Your task to perform on an android device: set default search engine in the chrome app Image 0: 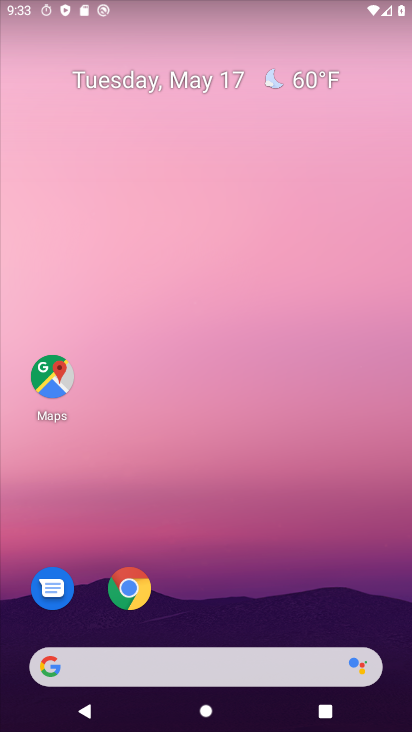
Step 0: drag from (259, 694) to (116, 195)
Your task to perform on an android device: set default search engine in the chrome app Image 1: 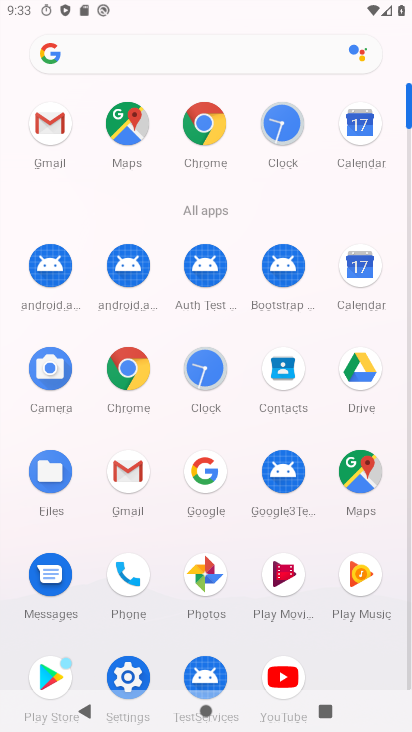
Step 1: click (124, 353)
Your task to perform on an android device: set default search engine in the chrome app Image 2: 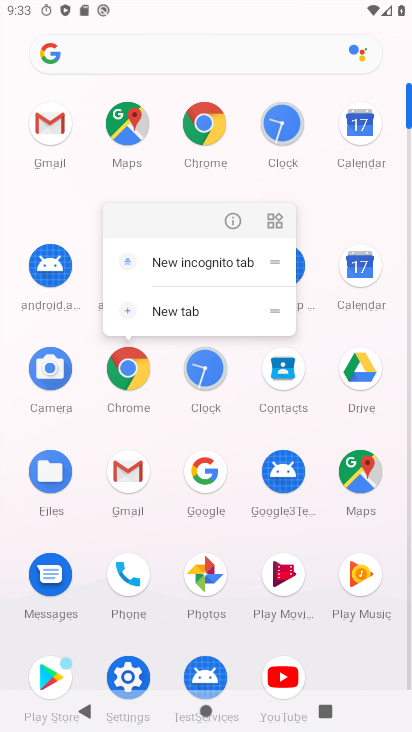
Step 2: click (120, 376)
Your task to perform on an android device: set default search engine in the chrome app Image 3: 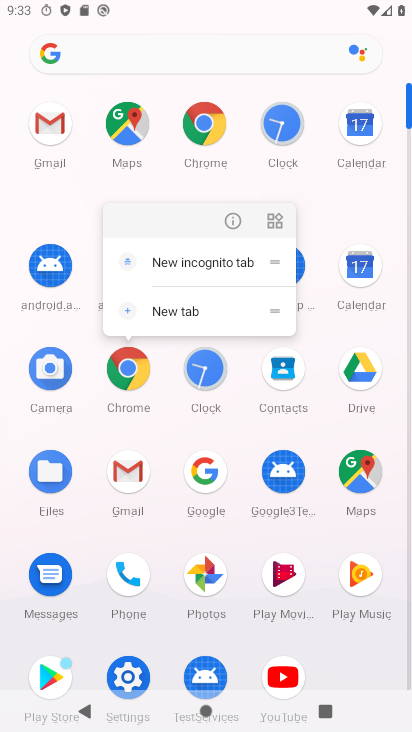
Step 3: click (137, 359)
Your task to perform on an android device: set default search engine in the chrome app Image 4: 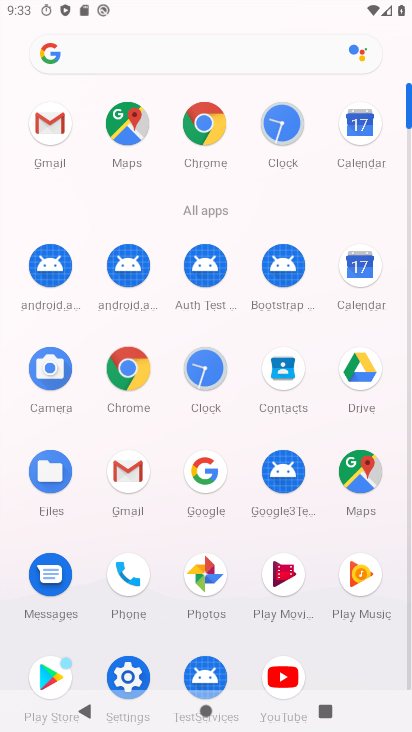
Step 4: click (131, 370)
Your task to perform on an android device: set default search engine in the chrome app Image 5: 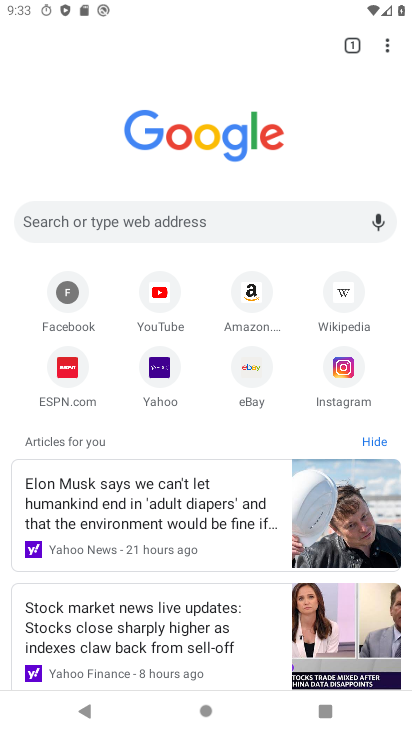
Step 5: drag from (384, 47) to (222, 377)
Your task to perform on an android device: set default search engine in the chrome app Image 6: 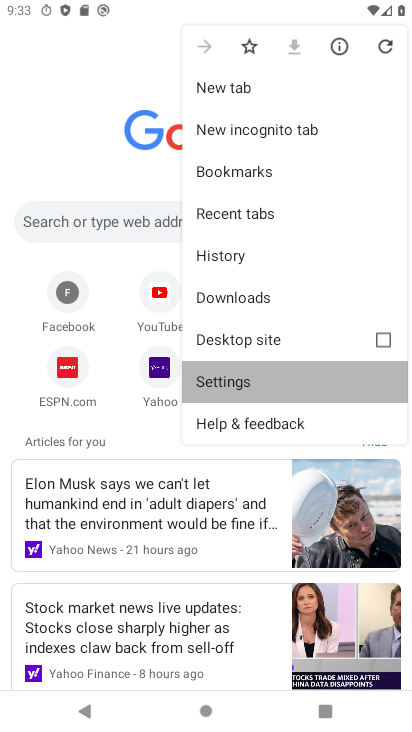
Step 6: click (221, 378)
Your task to perform on an android device: set default search engine in the chrome app Image 7: 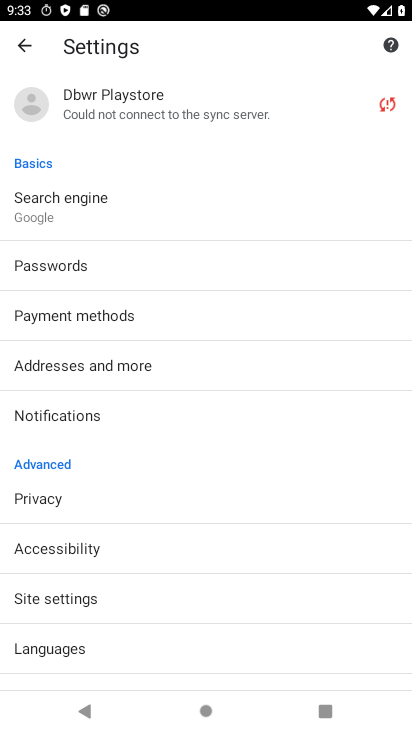
Step 7: click (40, 196)
Your task to perform on an android device: set default search engine in the chrome app Image 8: 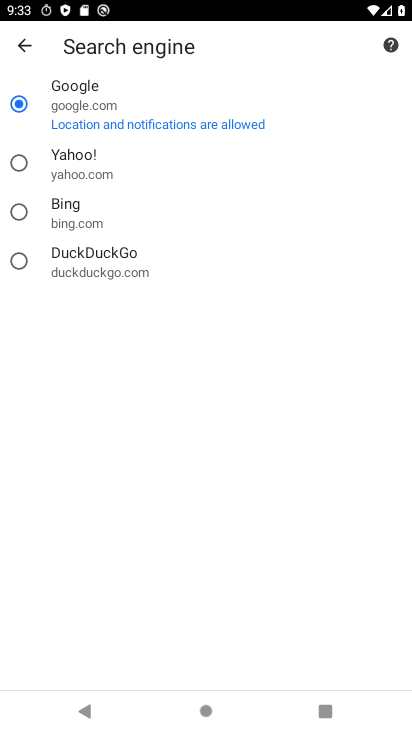
Step 8: click (14, 159)
Your task to perform on an android device: set default search engine in the chrome app Image 9: 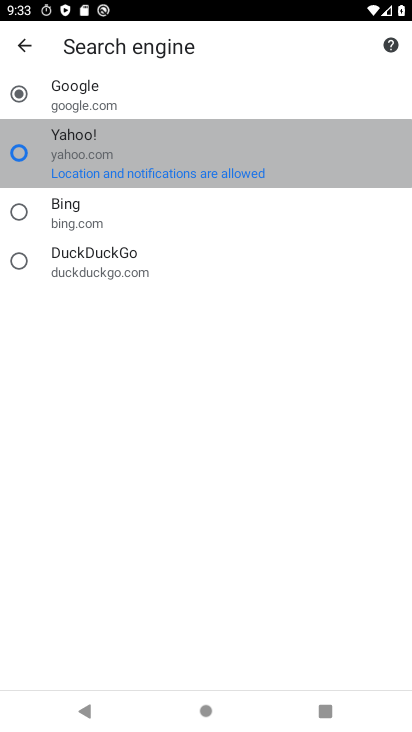
Step 9: click (16, 157)
Your task to perform on an android device: set default search engine in the chrome app Image 10: 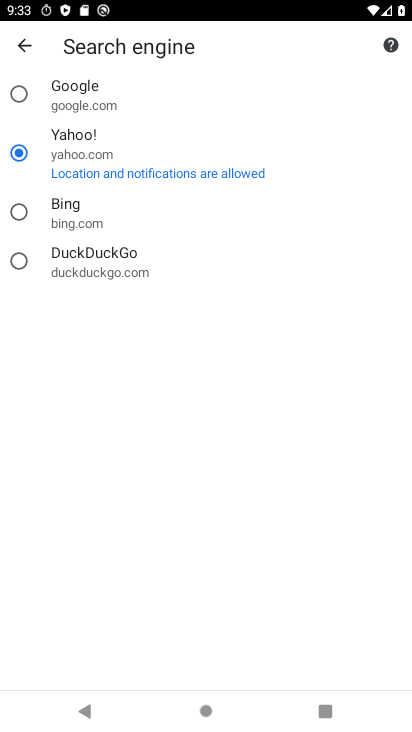
Step 10: task complete